Your task to perform on an android device: Turn off the flashlight Image 0: 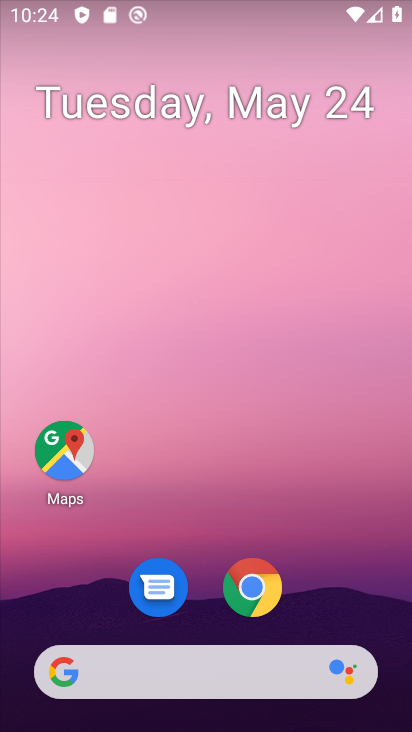
Step 0: press back button
Your task to perform on an android device: Turn off the flashlight Image 1: 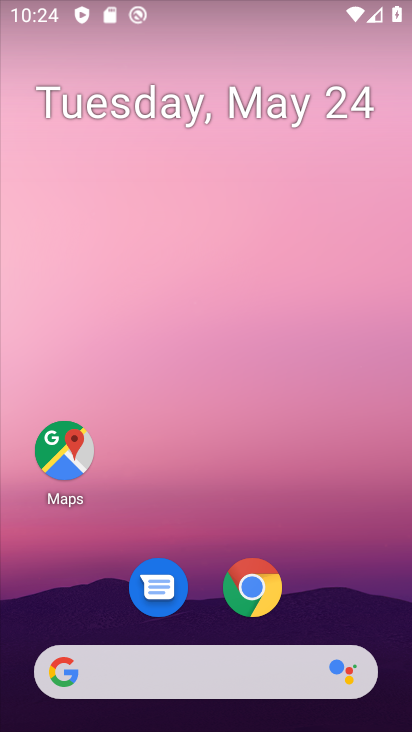
Step 1: press home button
Your task to perform on an android device: Turn off the flashlight Image 2: 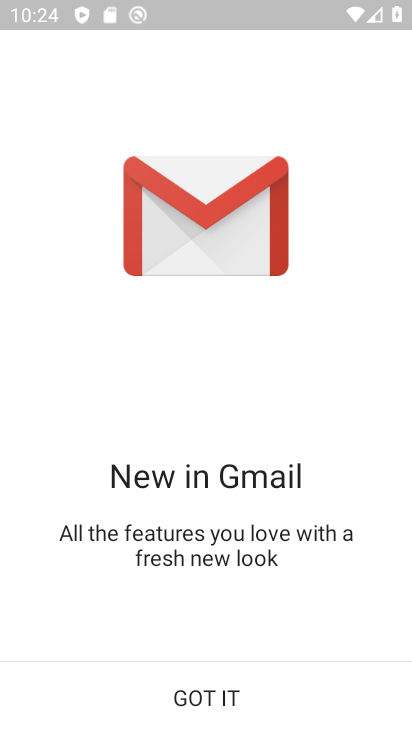
Step 2: click (173, 160)
Your task to perform on an android device: Turn off the flashlight Image 3: 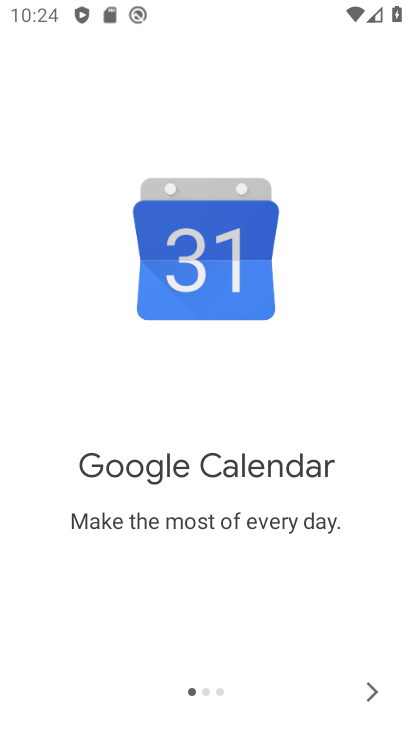
Step 3: click (376, 699)
Your task to perform on an android device: Turn off the flashlight Image 4: 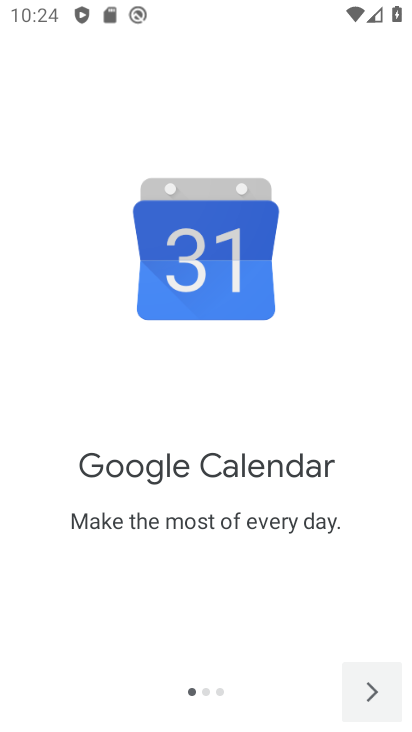
Step 4: click (376, 699)
Your task to perform on an android device: Turn off the flashlight Image 5: 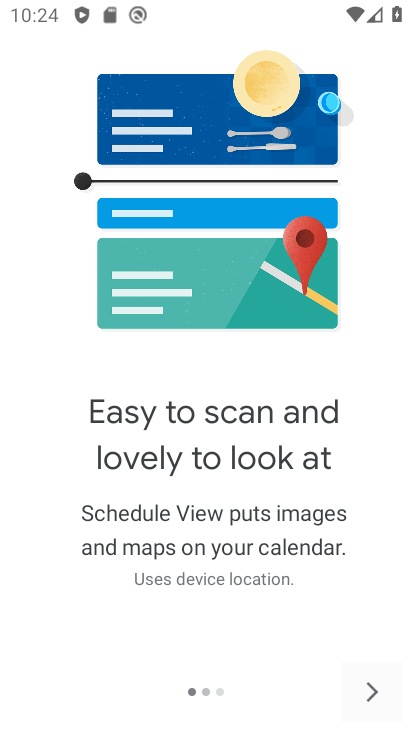
Step 5: click (376, 699)
Your task to perform on an android device: Turn off the flashlight Image 6: 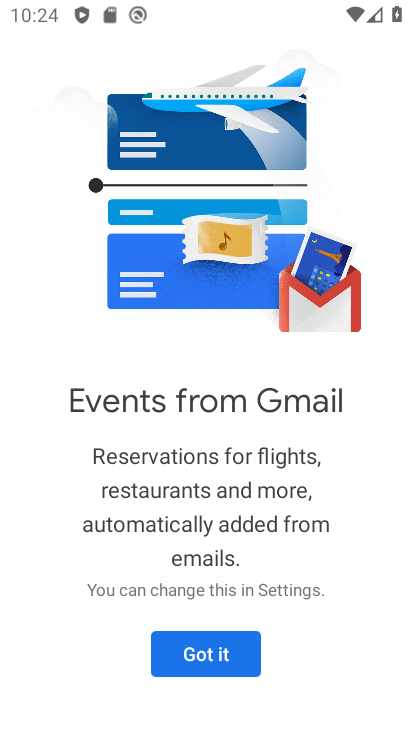
Step 6: click (373, 697)
Your task to perform on an android device: Turn off the flashlight Image 7: 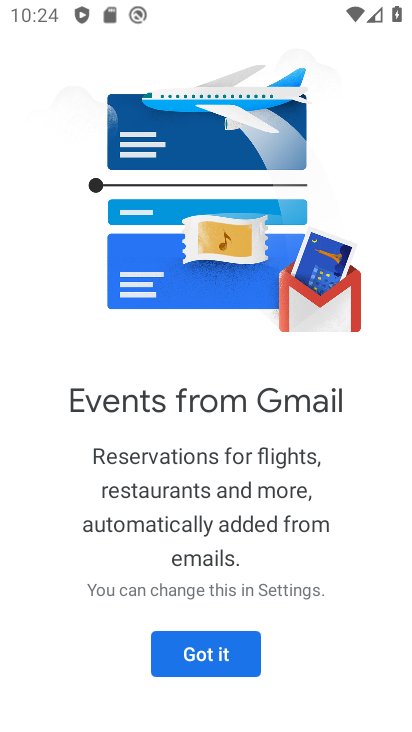
Step 7: click (215, 654)
Your task to perform on an android device: Turn off the flashlight Image 8: 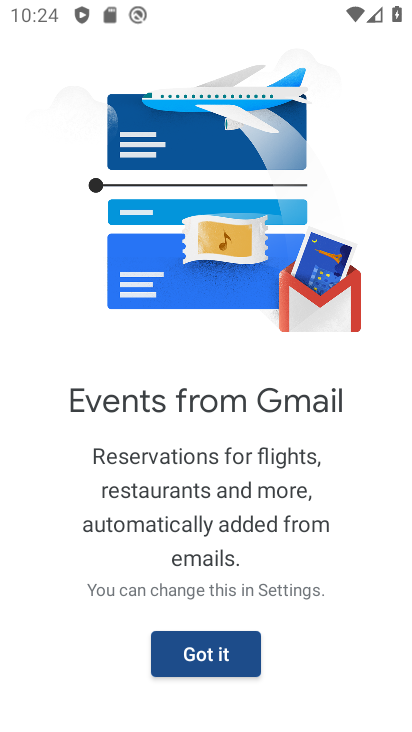
Step 8: click (215, 654)
Your task to perform on an android device: Turn off the flashlight Image 9: 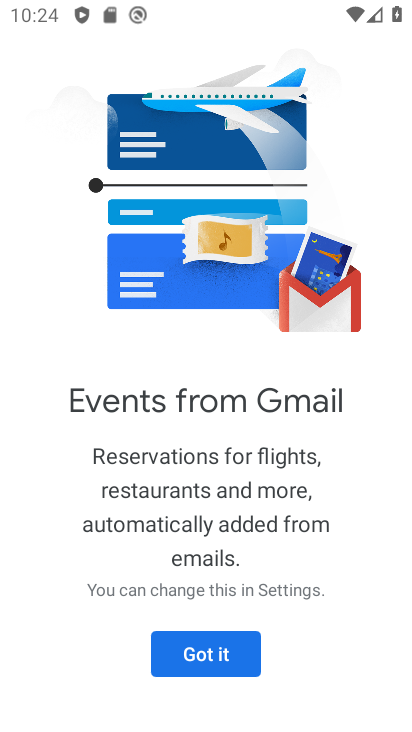
Step 9: click (215, 654)
Your task to perform on an android device: Turn off the flashlight Image 10: 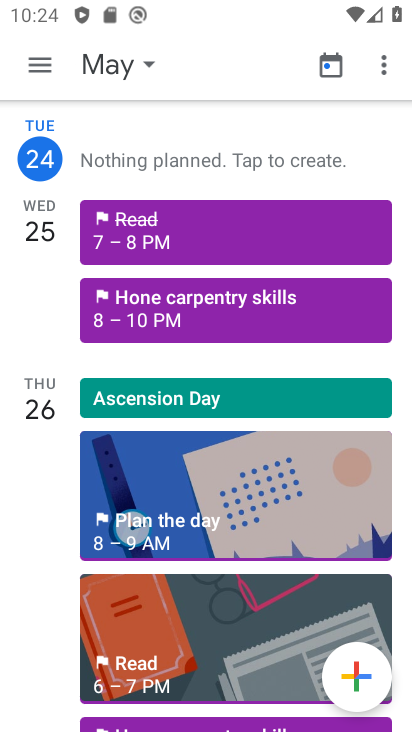
Step 10: drag from (245, 508) to (240, 252)
Your task to perform on an android device: Turn off the flashlight Image 11: 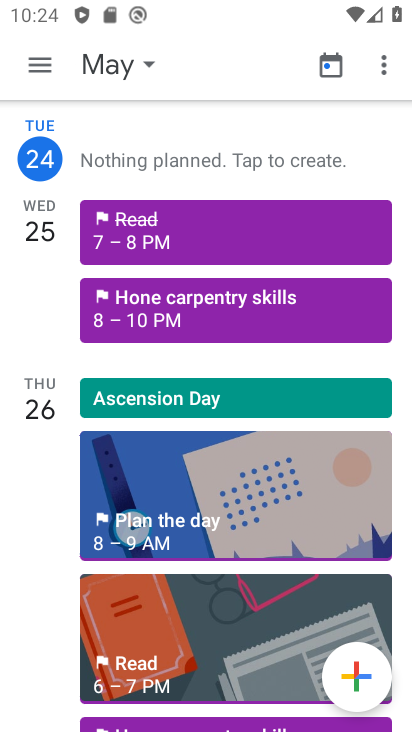
Step 11: drag from (240, 530) to (210, 208)
Your task to perform on an android device: Turn off the flashlight Image 12: 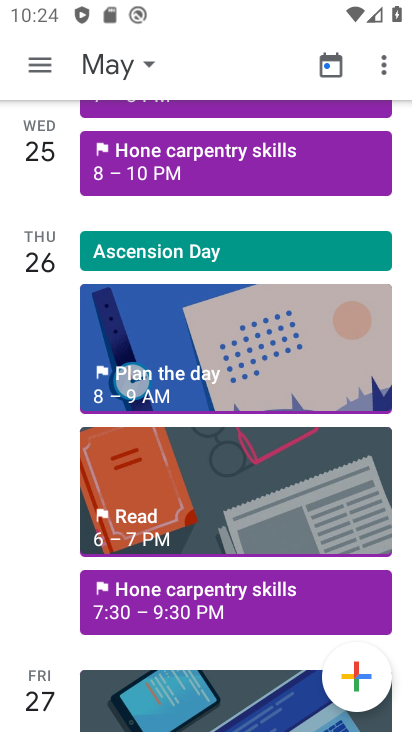
Step 12: drag from (185, 565) to (147, 135)
Your task to perform on an android device: Turn off the flashlight Image 13: 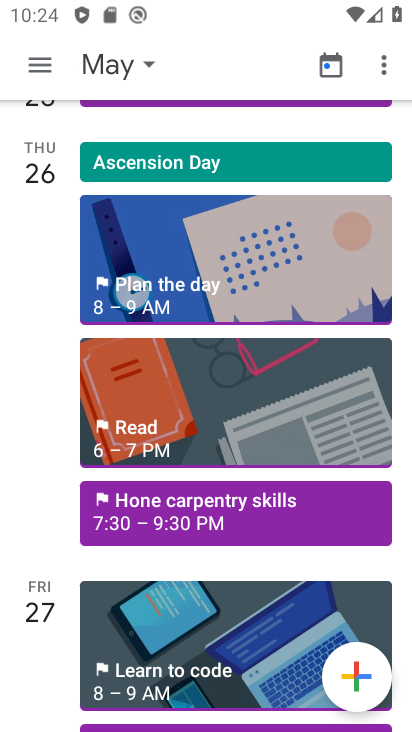
Step 13: drag from (145, 485) to (186, 132)
Your task to perform on an android device: Turn off the flashlight Image 14: 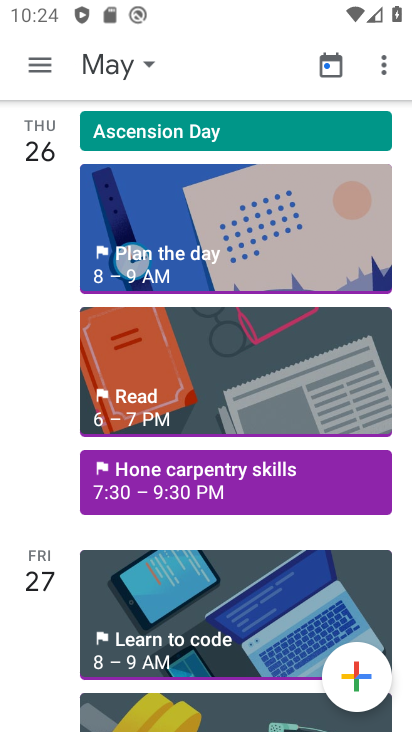
Step 14: click (208, 255)
Your task to perform on an android device: Turn off the flashlight Image 15: 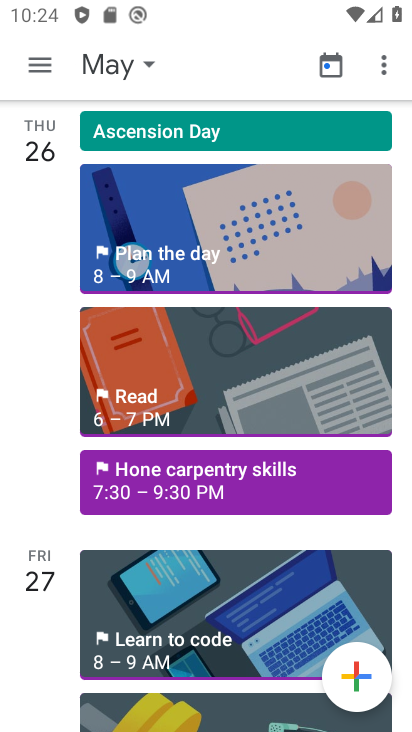
Step 15: click (211, 252)
Your task to perform on an android device: Turn off the flashlight Image 16: 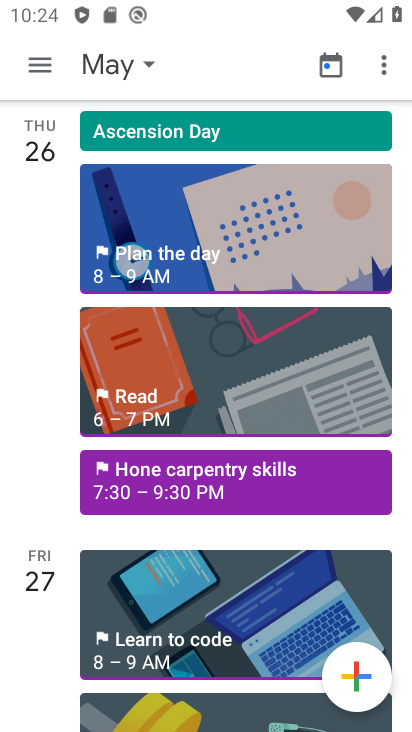
Step 16: task complete